Your task to perform on an android device: Open CNN.com Image 0: 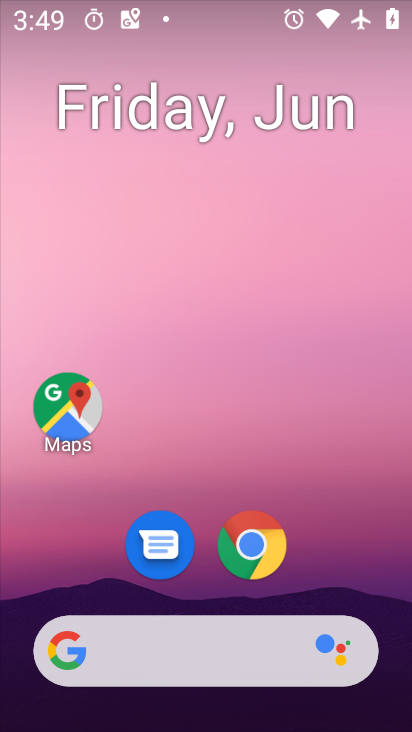
Step 0: click (247, 538)
Your task to perform on an android device: Open CNN.com Image 1: 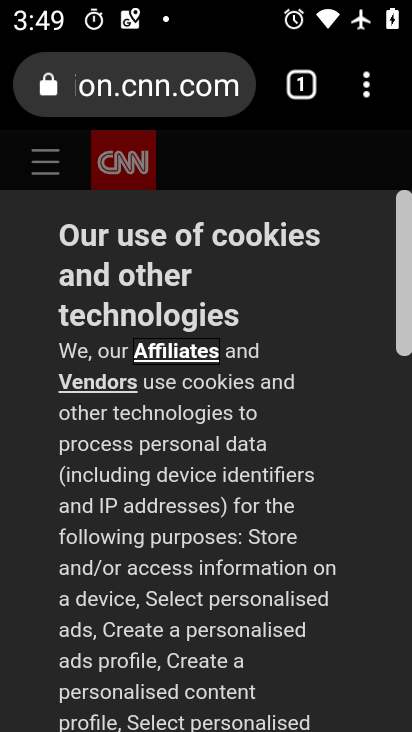
Step 1: task complete